Your task to perform on an android device: turn vacation reply on in the gmail app Image 0: 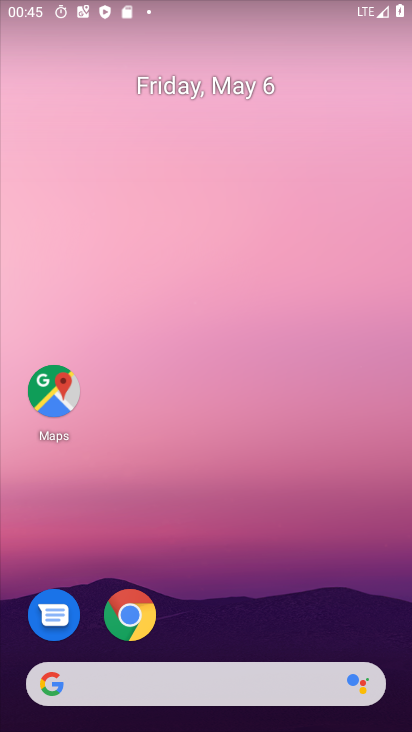
Step 0: drag from (238, 591) to (289, 77)
Your task to perform on an android device: turn vacation reply on in the gmail app Image 1: 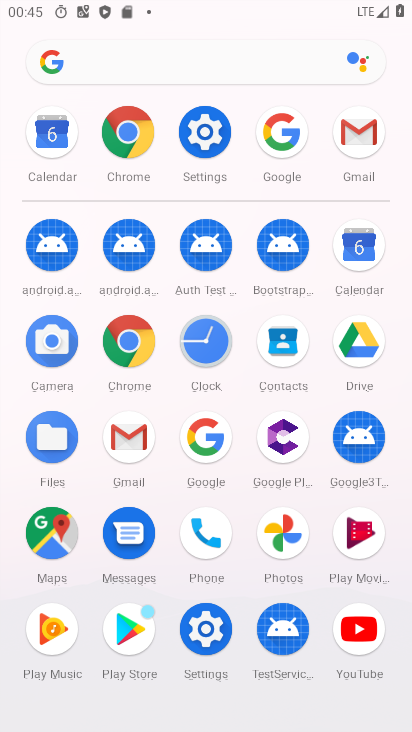
Step 1: click (355, 136)
Your task to perform on an android device: turn vacation reply on in the gmail app Image 2: 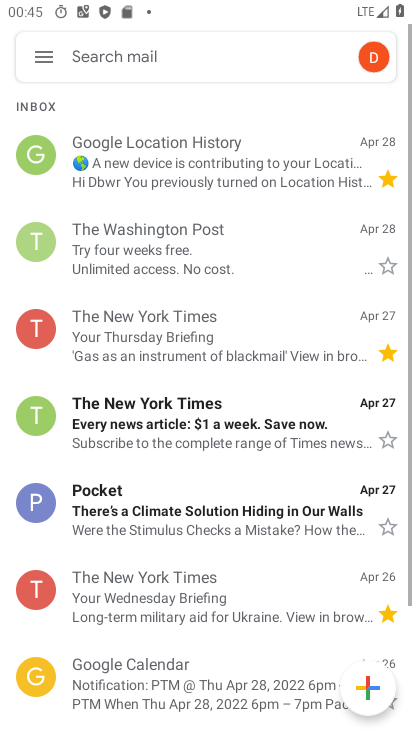
Step 2: click (39, 52)
Your task to perform on an android device: turn vacation reply on in the gmail app Image 3: 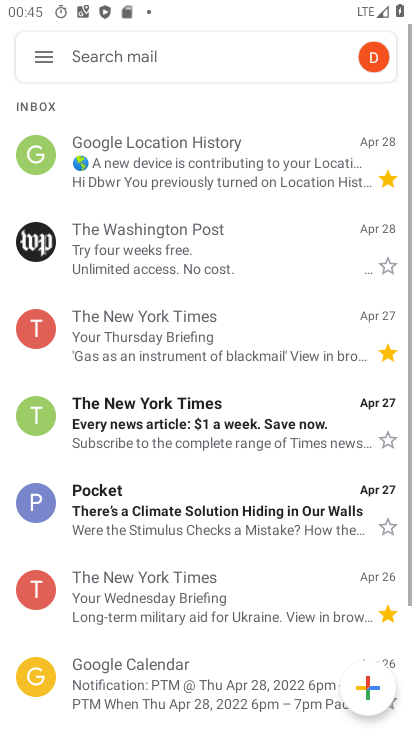
Step 3: click (48, 56)
Your task to perform on an android device: turn vacation reply on in the gmail app Image 4: 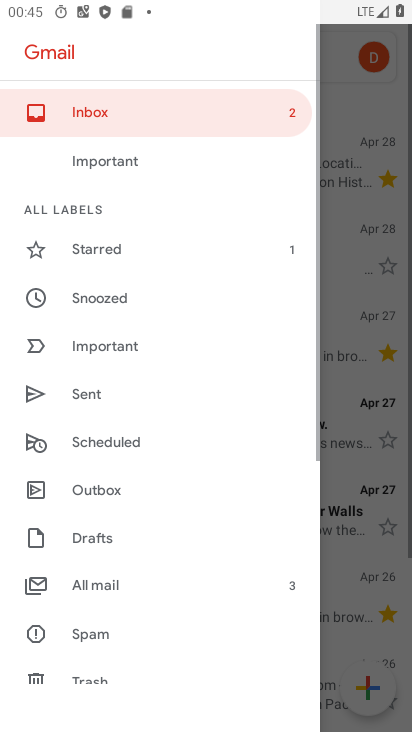
Step 4: drag from (103, 571) to (205, 126)
Your task to perform on an android device: turn vacation reply on in the gmail app Image 5: 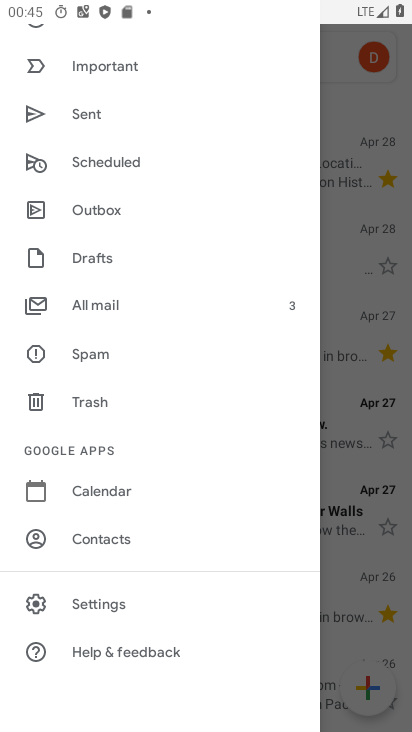
Step 5: click (105, 606)
Your task to perform on an android device: turn vacation reply on in the gmail app Image 6: 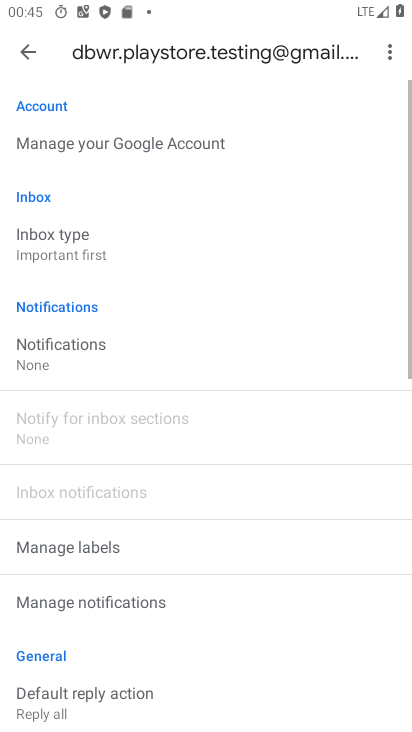
Step 6: drag from (244, 528) to (321, 14)
Your task to perform on an android device: turn vacation reply on in the gmail app Image 7: 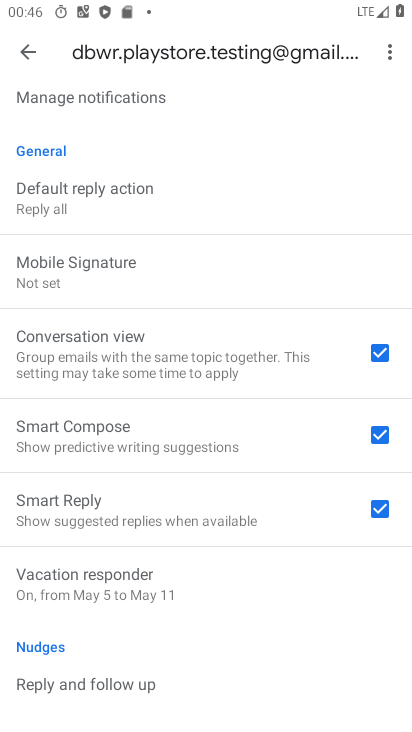
Step 7: click (68, 600)
Your task to perform on an android device: turn vacation reply on in the gmail app Image 8: 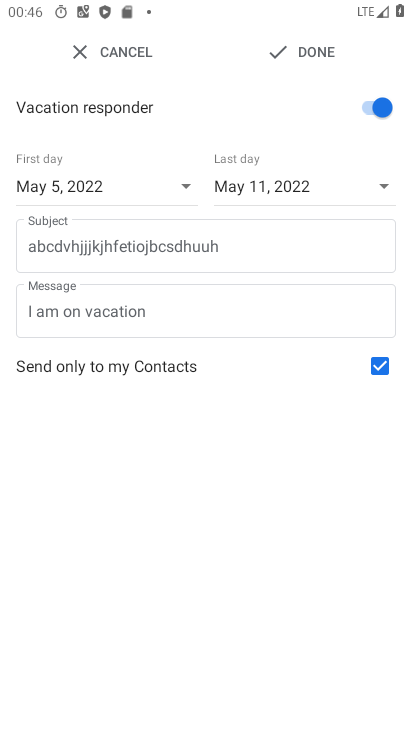
Step 8: task complete